Your task to perform on an android device: When is my next meeting? Image 0: 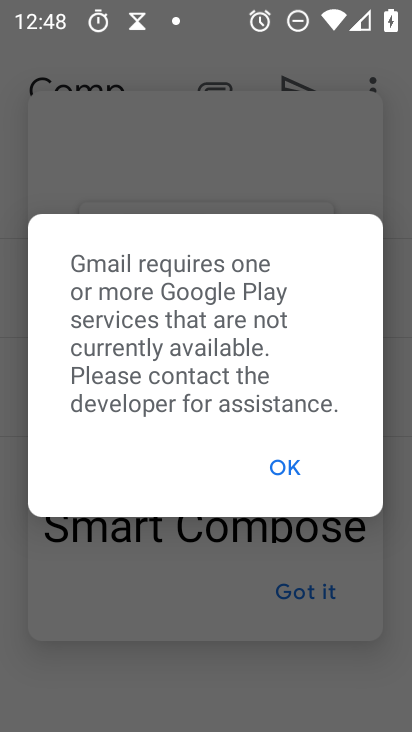
Step 0: press home button
Your task to perform on an android device: When is my next meeting? Image 1: 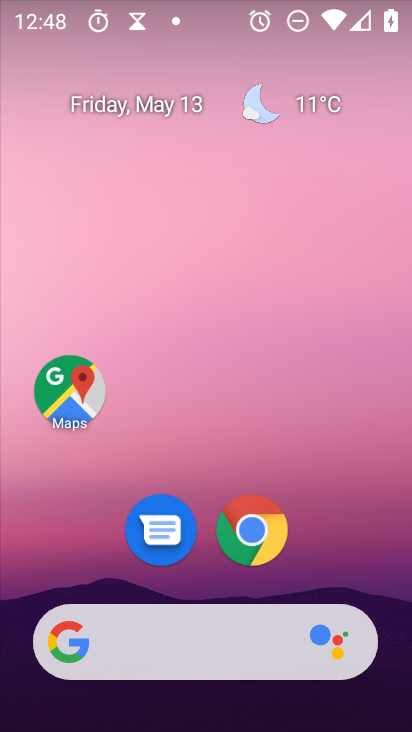
Step 1: drag from (175, 644) to (302, 191)
Your task to perform on an android device: When is my next meeting? Image 2: 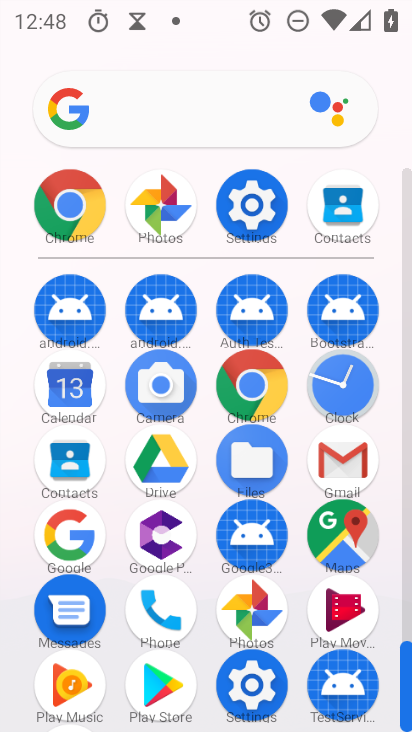
Step 2: click (78, 395)
Your task to perform on an android device: When is my next meeting? Image 3: 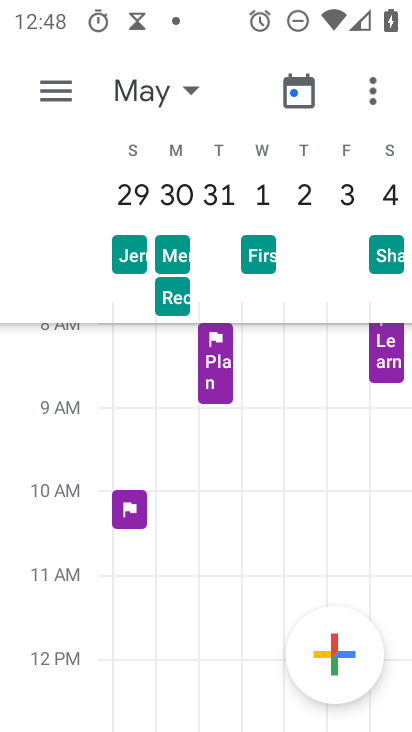
Step 3: click (129, 94)
Your task to perform on an android device: When is my next meeting? Image 4: 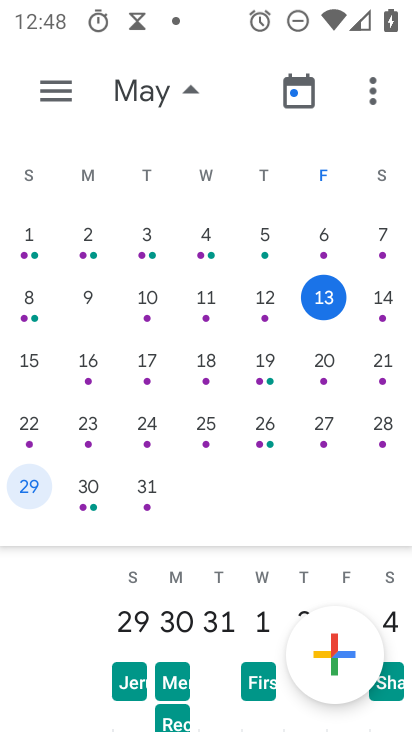
Step 4: click (322, 297)
Your task to perform on an android device: When is my next meeting? Image 5: 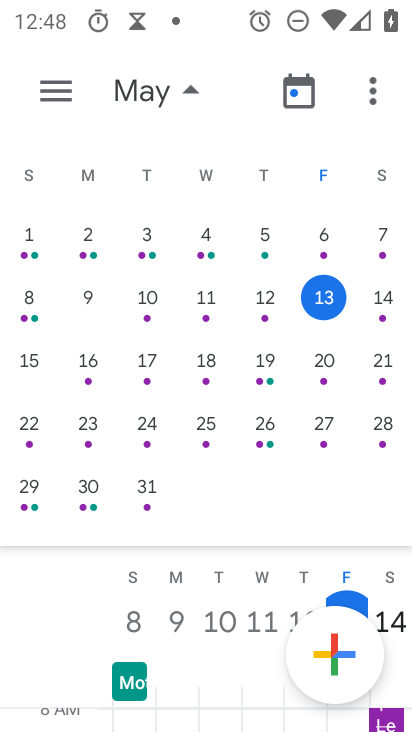
Step 5: click (63, 88)
Your task to perform on an android device: When is my next meeting? Image 6: 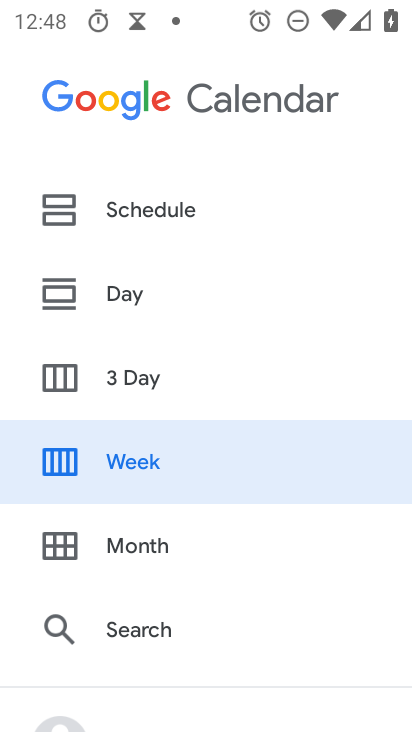
Step 6: click (163, 211)
Your task to perform on an android device: When is my next meeting? Image 7: 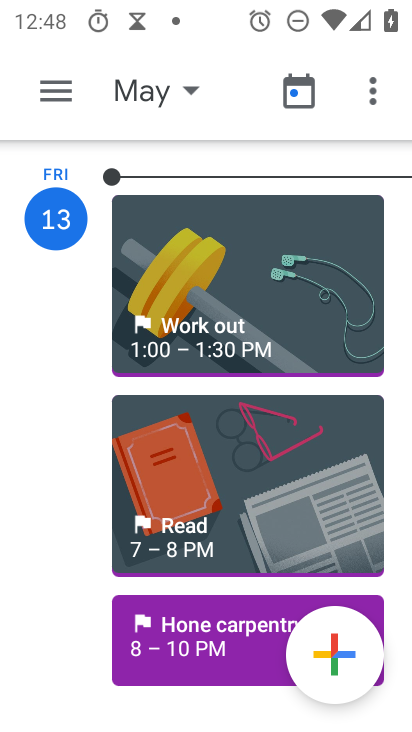
Step 7: task complete